Your task to perform on an android device: turn on showing notifications on the lock screen Image 0: 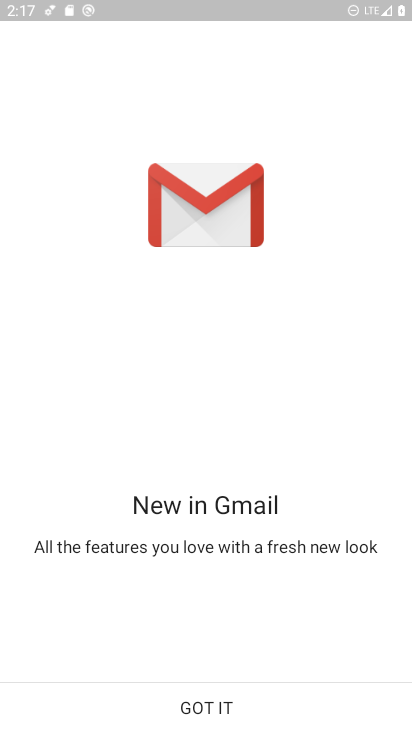
Step 0: press home button
Your task to perform on an android device: turn on showing notifications on the lock screen Image 1: 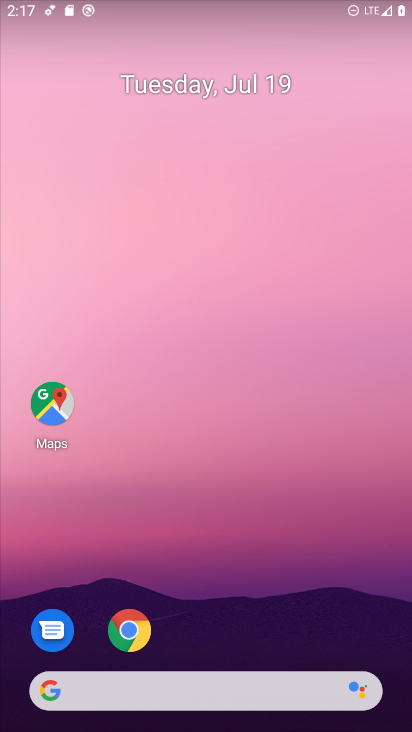
Step 1: drag from (385, 644) to (340, 112)
Your task to perform on an android device: turn on showing notifications on the lock screen Image 2: 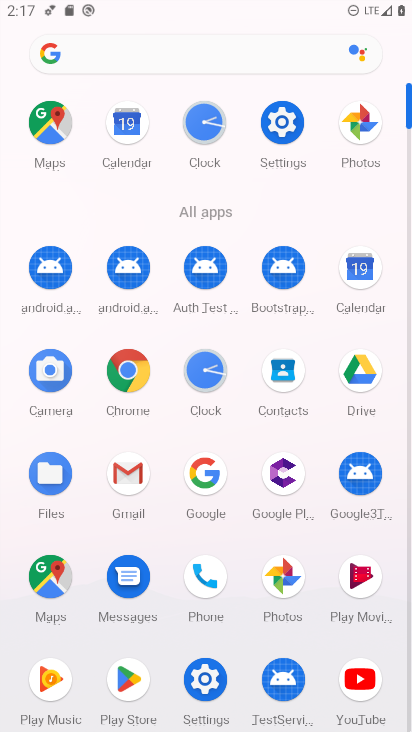
Step 2: click (205, 680)
Your task to perform on an android device: turn on showing notifications on the lock screen Image 3: 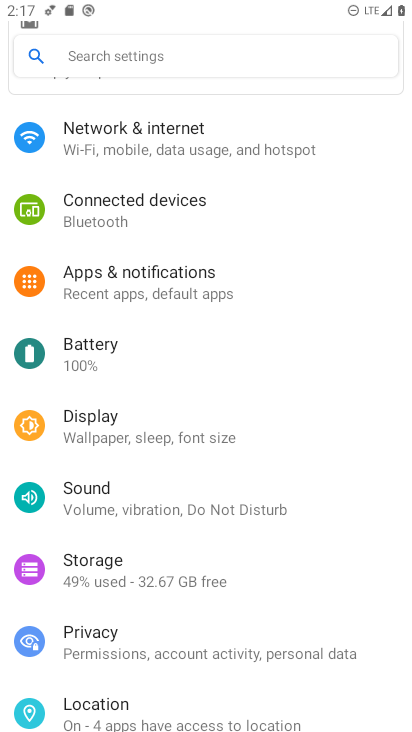
Step 3: click (119, 277)
Your task to perform on an android device: turn on showing notifications on the lock screen Image 4: 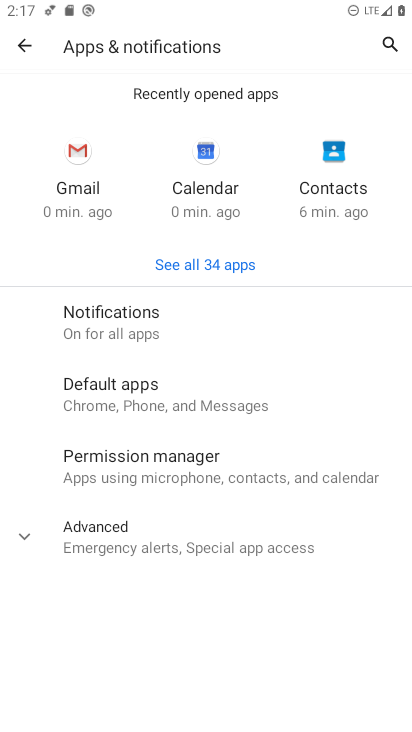
Step 4: click (108, 318)
Your task to perform on an android device: turn on showing notifications on the lock screen Image 5: 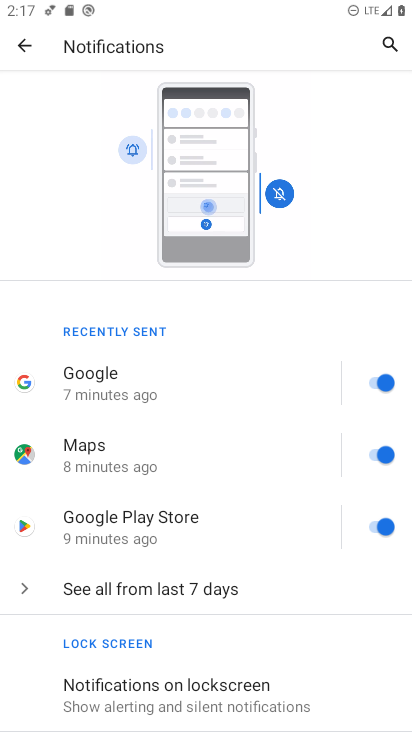
Step 5: drag from (269, 610) to (251, 223)
Your task to perform on an android device: turn on showing notifications on the lock screen Image 6: 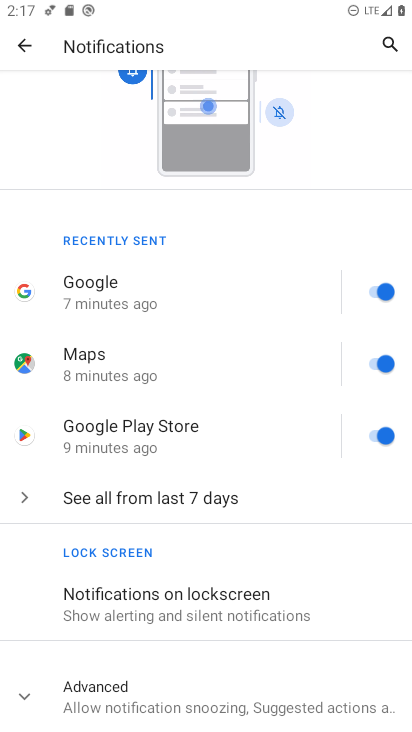
Step 6: click (138, 606)
Your task to perform on an android device: turn on showing notifications on the lock screen Image 7: 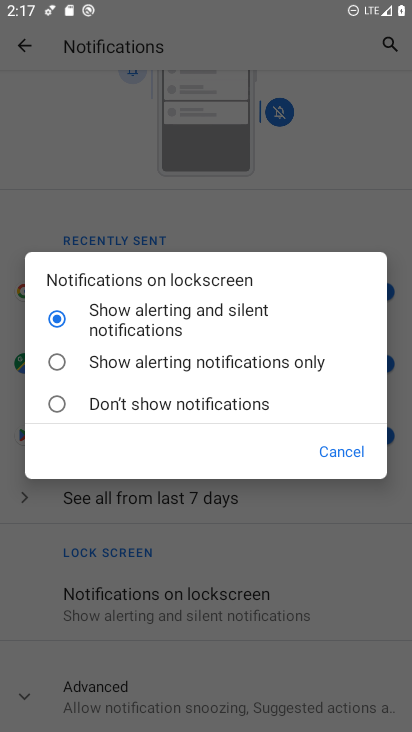
Step 7: task complete